Your task to perform on an android device: change timer sound Image 0: 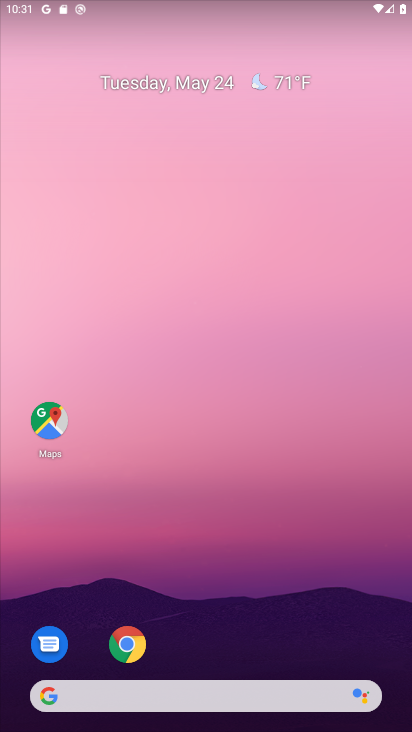
Step 0: drag from (267, 564) to (320, 32)
Your task to perform on an android device: change timer sound Image 1: 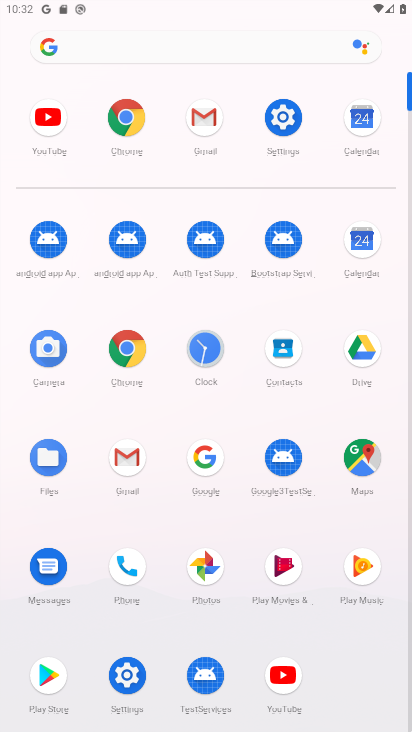
Step 1: click (211, 347)
Your task to perform on an android device: change timer sound Image 2: 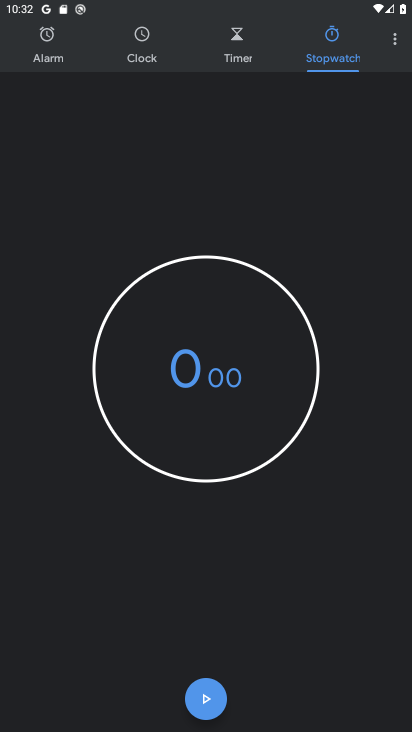
Step 2: click (218, 329)
Your task to perform on an android device: change timer sound Image 3: 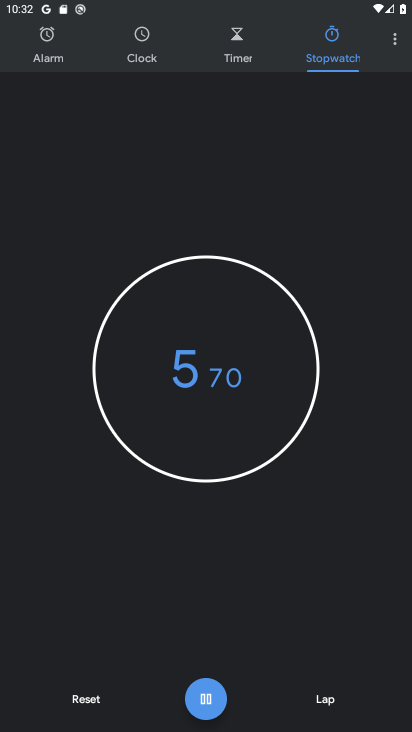
Step 3: click (238, 36)
Your task to perform on an android device: change timer sound Image 4: 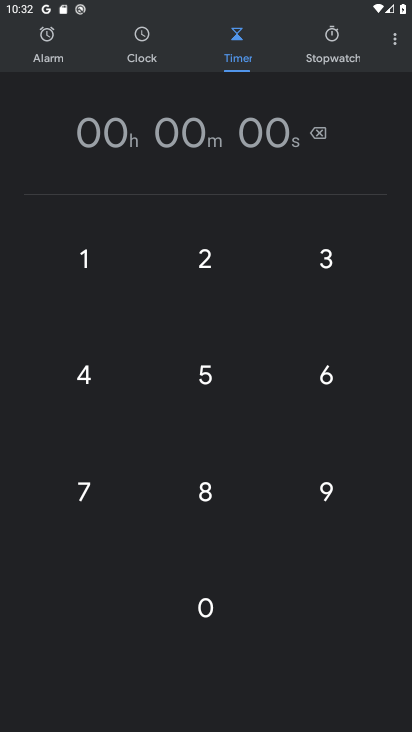
Step 4: click (397, 41)
Your task to perform on an android device: change timer sound Image 5: 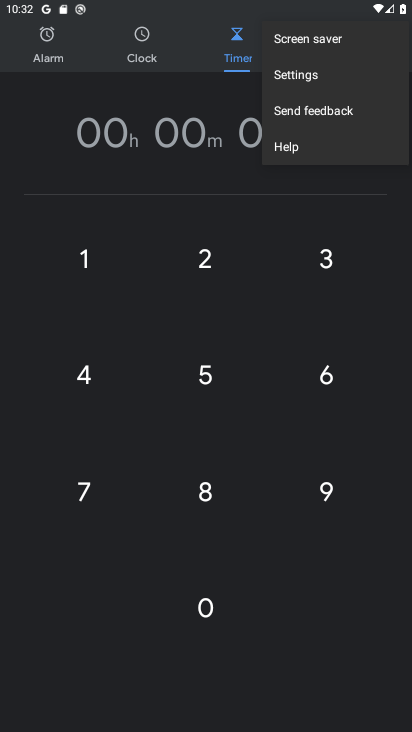
Step 5: click (304, 72)
Your task to perform on an android device: change timer sound Image 6: 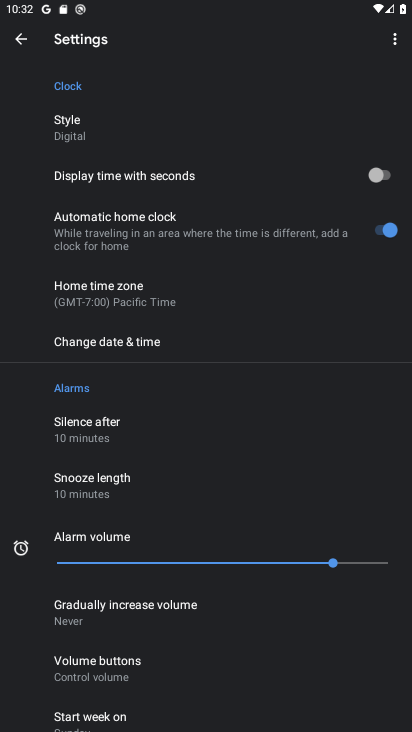
Step 6: drag from (181, 485) to (170, 124)
Your task to perform on an android device: change timer sound Image 7: 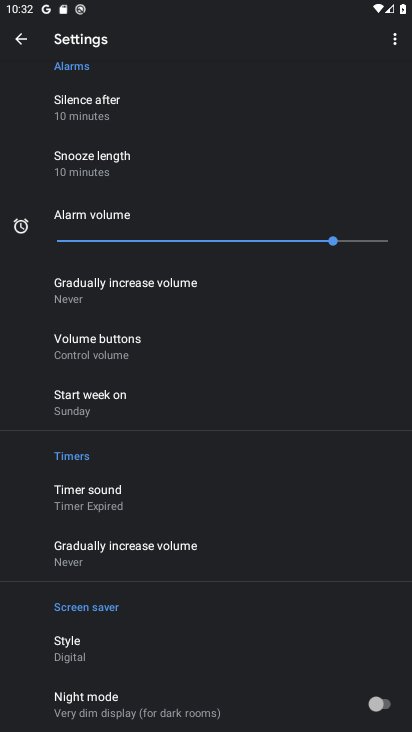
Step 7: click (86, 487)
Your task to perform on an android device: change timer sound Image 8: 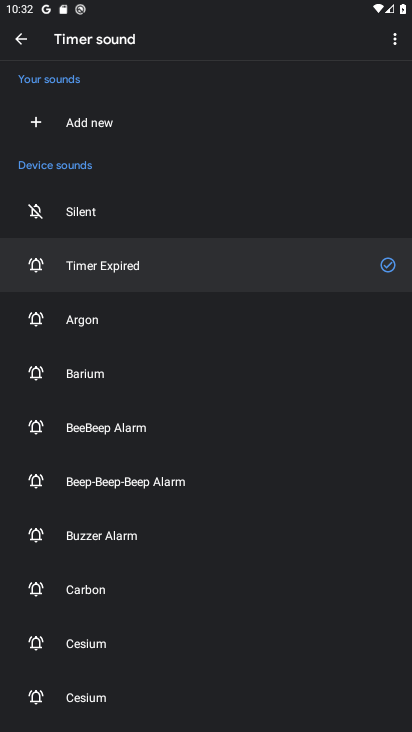
Step 8: click (88, 322)
Your task to perform on an android device: change timer sound Image 9: 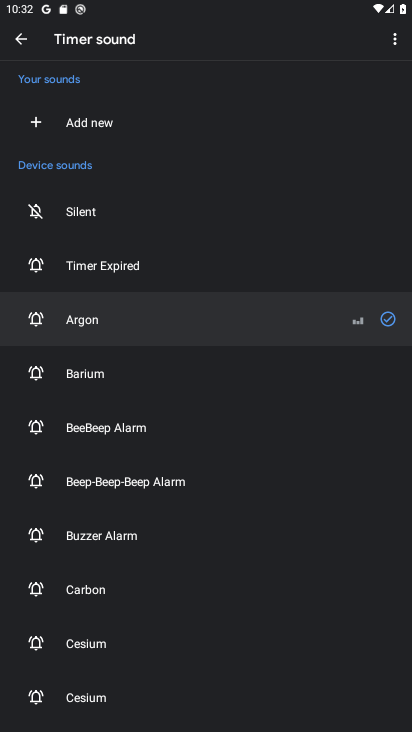
Step 9: task complete